Your task to perform on an android device: Go to internet settings Image 0: 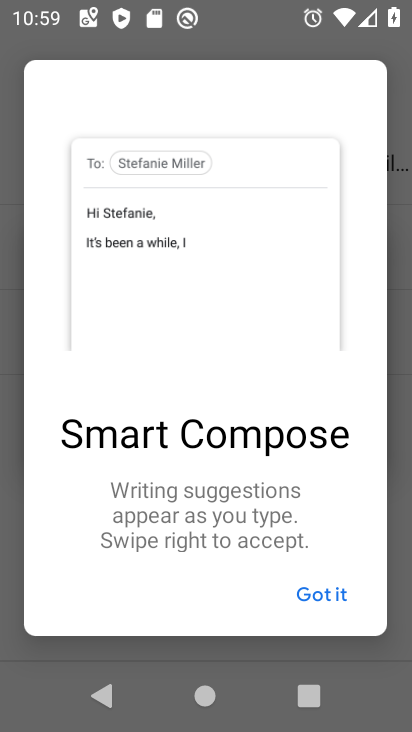
Step 0: press home button
Your task to perform on an android device: Go to internet settings Image 1: 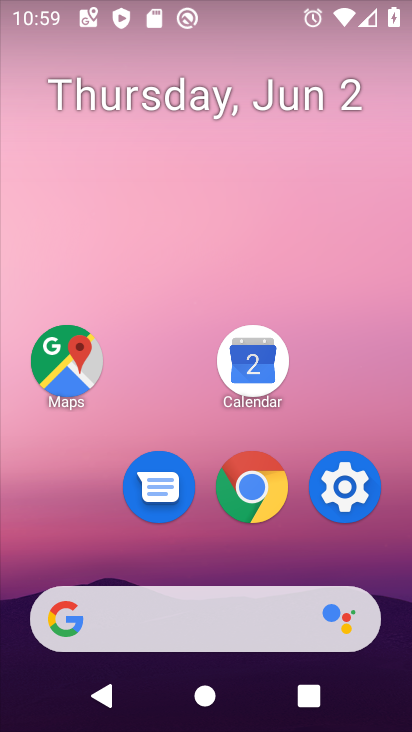
Step 1: click (355, 500)
Your task to perform on an android device: Go to internet settings Image 2: 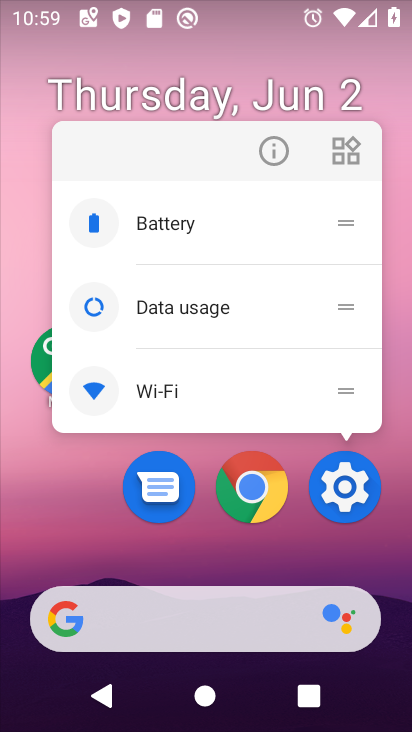
Step 2: click (339, 474)
Your task to perform on an android device: Go to internet settings Image 3: 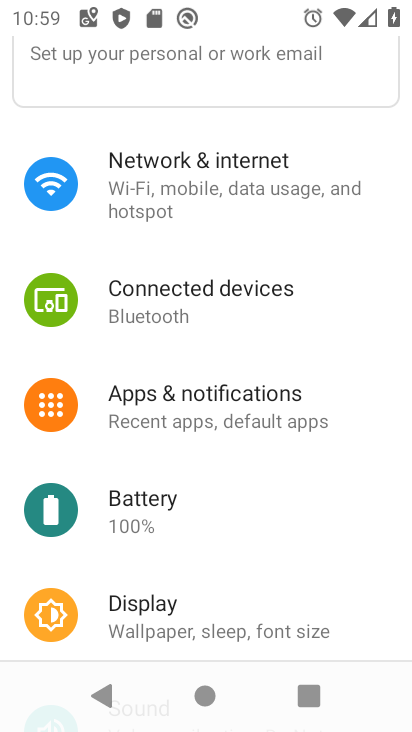
Step 3: click (172, 174)
Your task to perform on an android device: Go to internet settings Image 4: 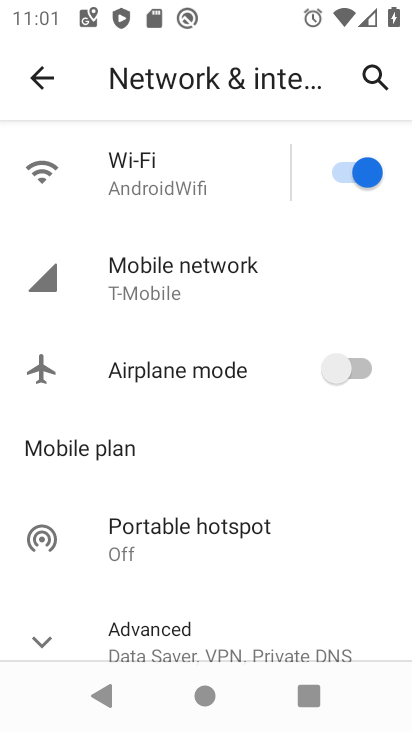
Step 4: task complete